Your task to perform on an android device: Go to sound settings Image 0: 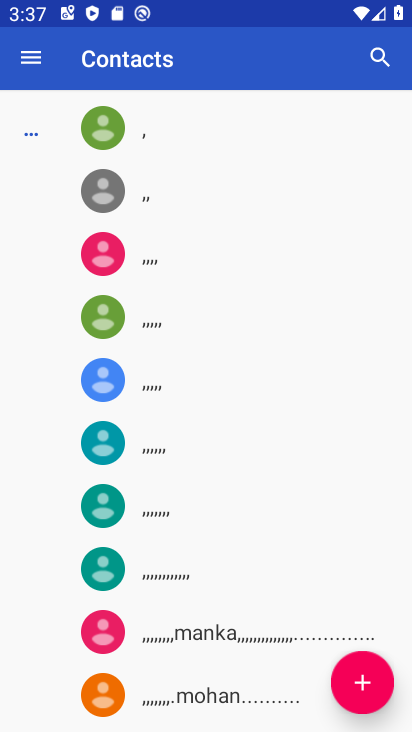
Step 0: press home button
Your task to perform on an android device: Go to sound settings Image 1: 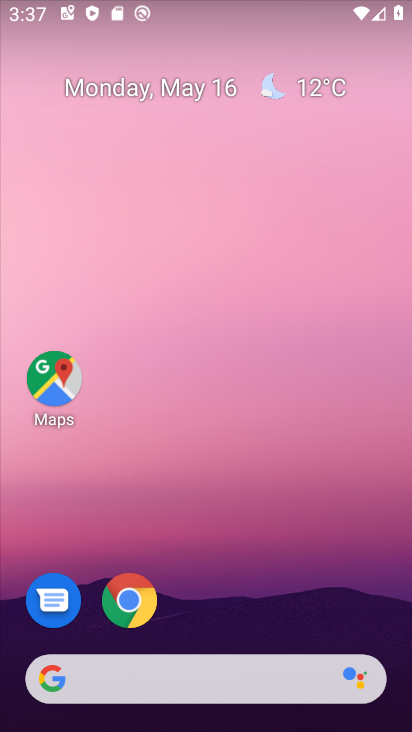
Step 1: drag from (210, 605) to (186, 304)
Your task to perform on an android device: Go to sound settings Image 2: 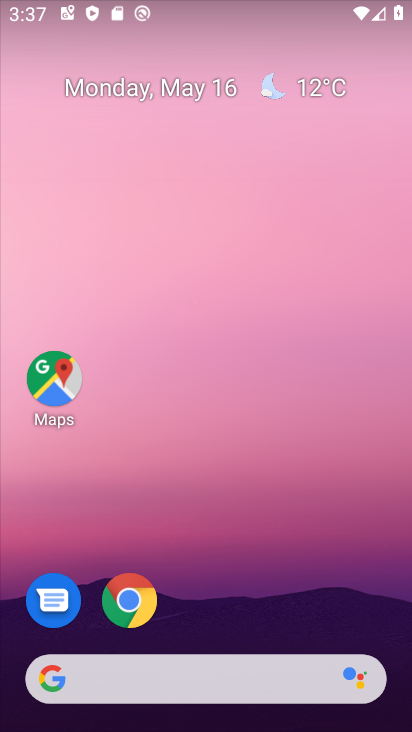
Step 2: drag from (203, 653) to (198, 114)
Your task to perform on an android device: Go to sound settings Image 3: 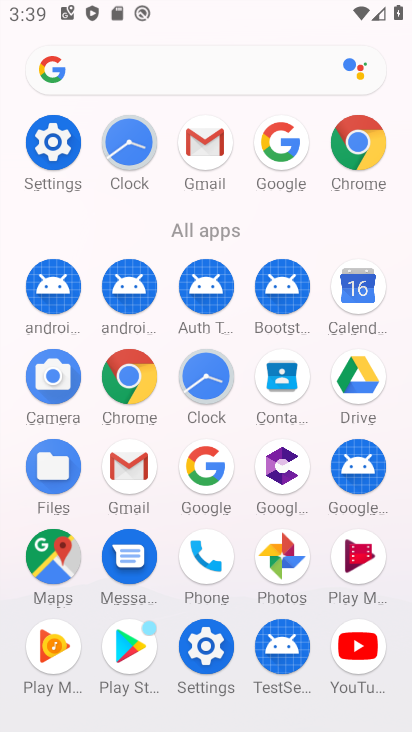
Step 3: click (51, 130)
Your task to perform on an android device: Go to sound settings Image 4: 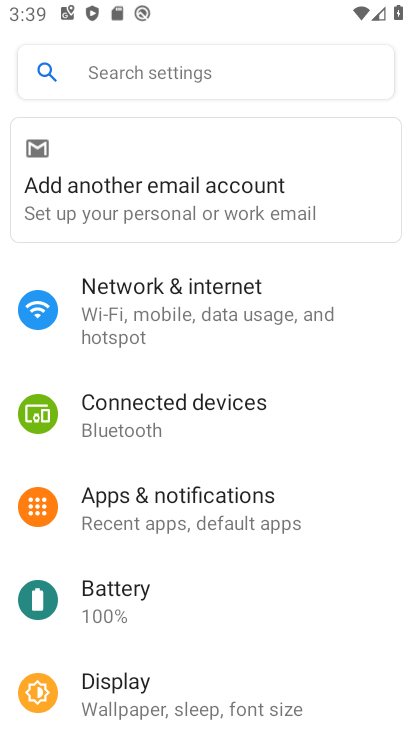
Step 4: drag from (155, 715) to (132, 285)
Your task to perform on an android device: Go to sound settings Image 5: 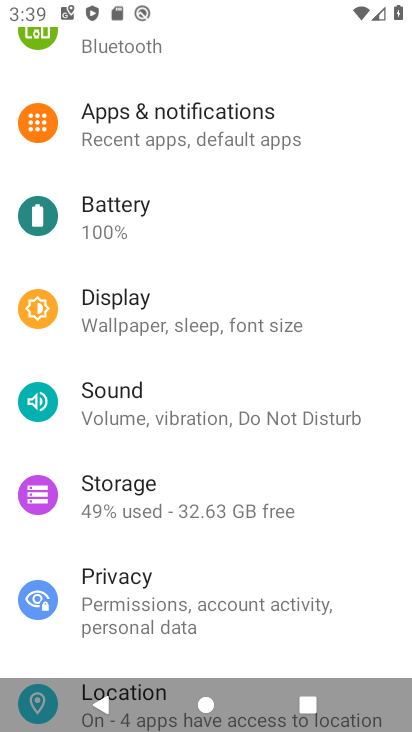
Step 5: click (137, 409)
Your task to perform on an android device: Go to sound settings Image 6: 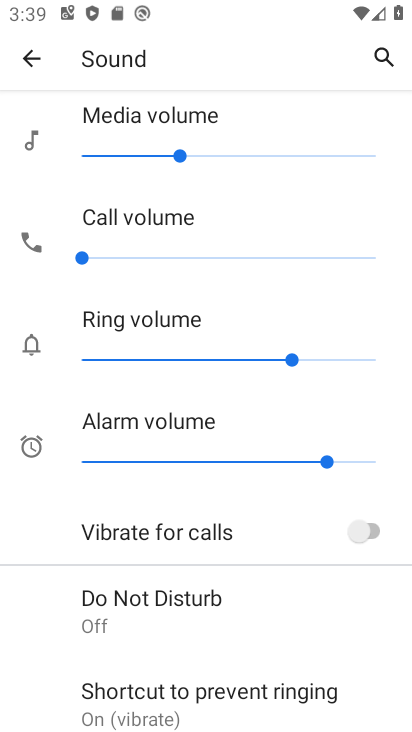
Step 6: task complete